Your task to perform on an android device: Search for Italian restaurants on Maps Image 0: 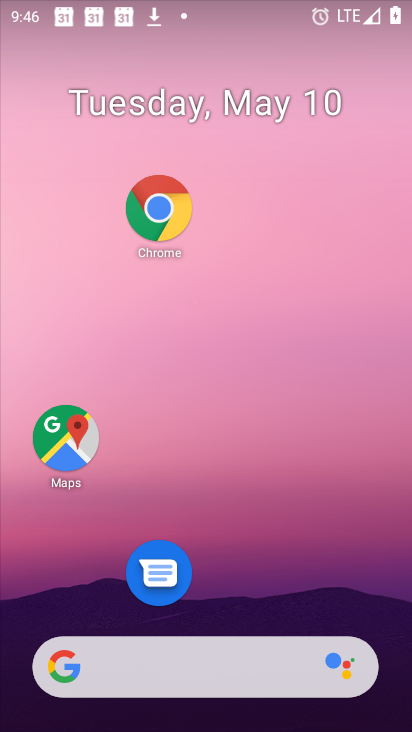
Step 0: drag from (297, 686) to (411, 285)
Your task to perform on an android device: Search for Italian restaurants on Maps Image 1: 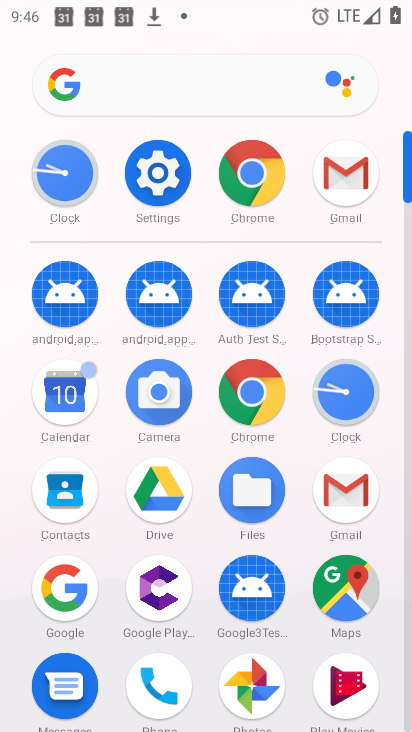
Step 1: click (366, 576)
Your task to perform on an android device: Search for Italian restaurants on Maps Image 2: 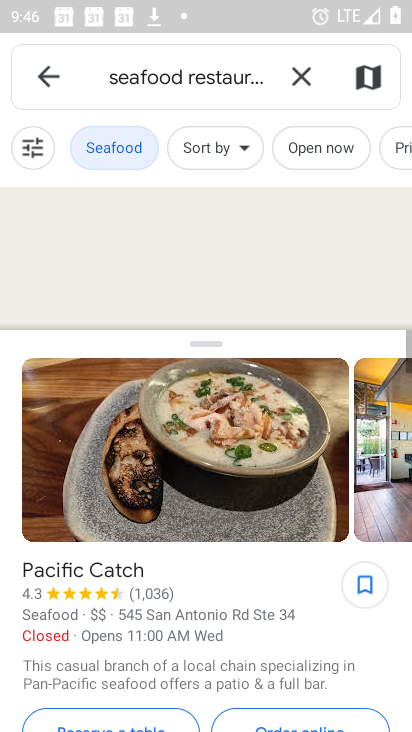
Step 2: click (290, 76)
Your task to perform on an android device: Search for Italian restaurants on Maps Image 3: 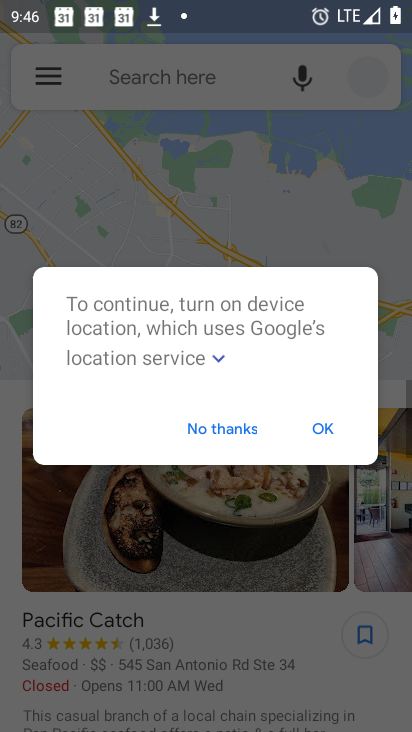
Step 3: click (220, 414)
Your task to perform on an android device: Search for Italian restaurants on Maps Image 4: 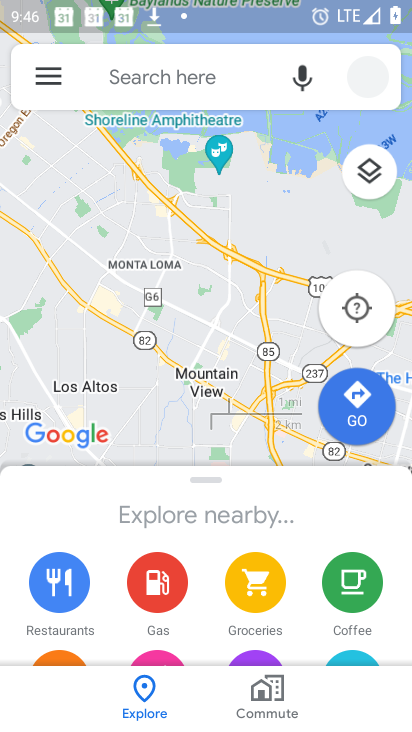
Step 4: click (154, 83)
Your task to perform on an android device: Search for Italian restaurants on Maps Image 5: 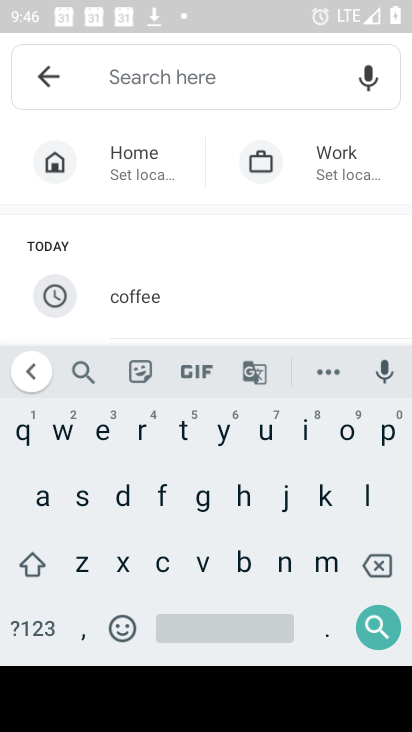
Step 5: click (294, 436)
Your task to perform on an android device: Search for Italian restaurants on Maps Image 6: 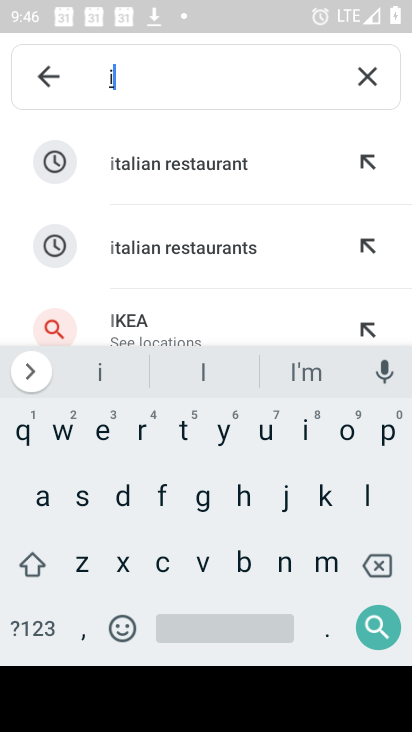
Step 6: click (224, 172)
Your task to perform on an android device: Search for Italian restaurants on Maps Image 7: 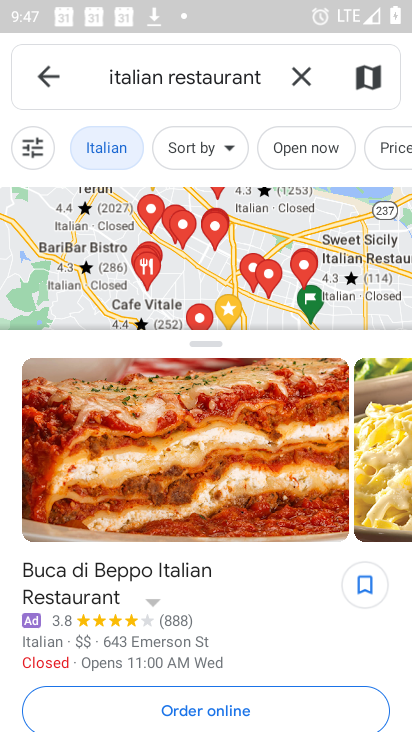
Step 7: click (200, 260)
Your task to perform on an android device: Search for Italian restaurants on Maps Image 8: 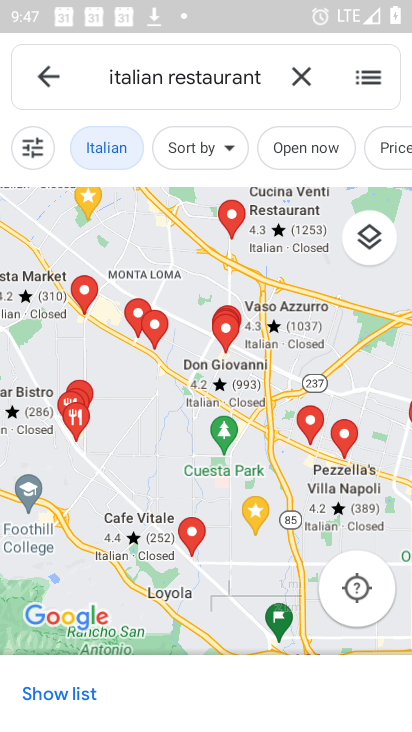
Step 8: task complete